Your task to perform on an android device: Go to battery settings Image 0: 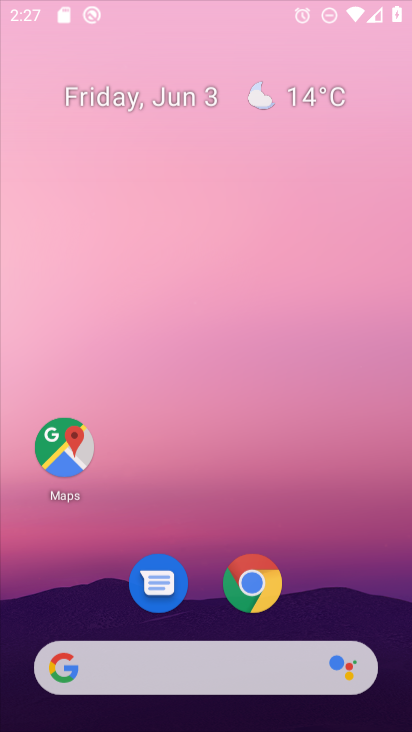
Step 0: drag from (330, 440) to (317, 21)
Your task to perform on an android device: Go to battery settings Image 1: 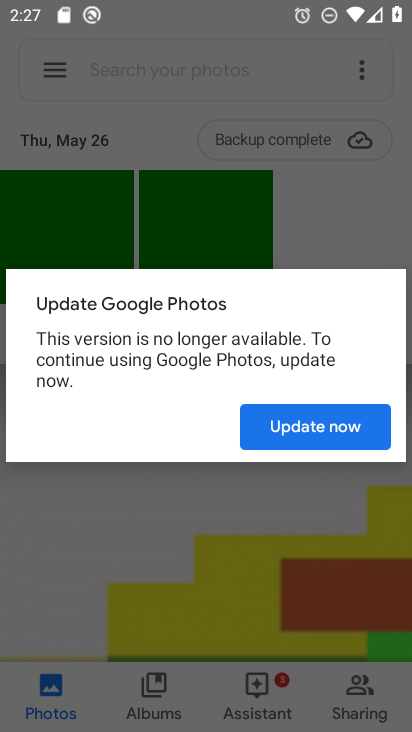
Step 1: press home button
Your task to perform on an android device: Go to battery settings Image 2: 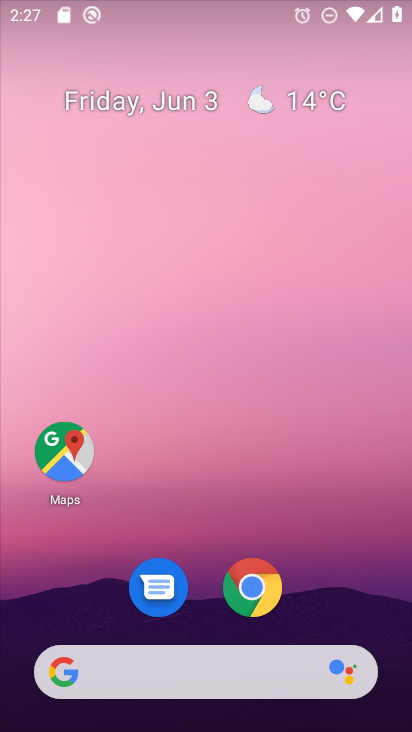
Step 2: drag from (335, 614) to (310, 15)
Your task to perform on an android device: Go to battery settings Image 3: 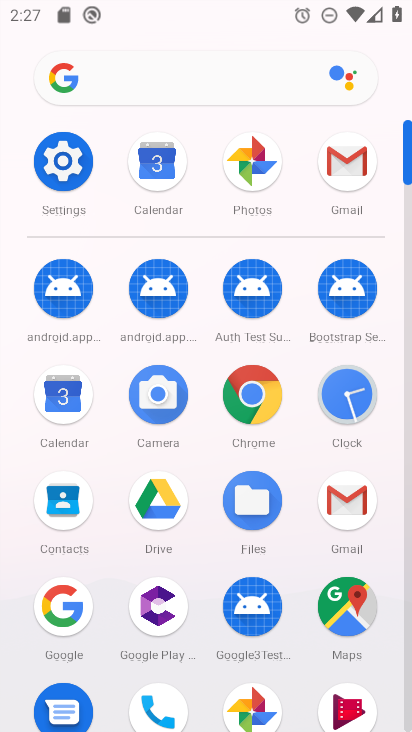
Step 3: click (57, 177)
Your task to perform on an android device: Go to battery settings Image 4: 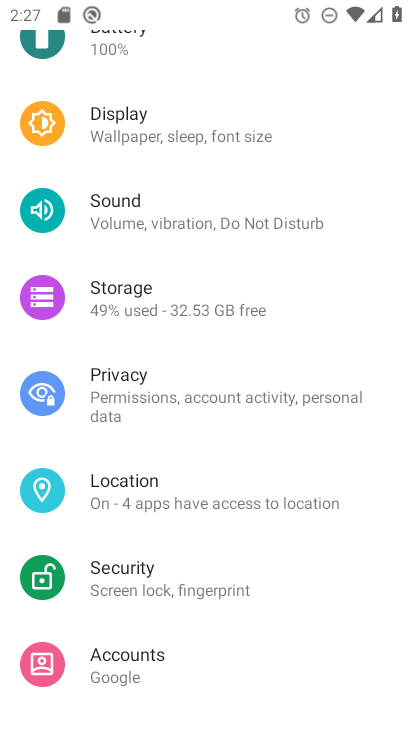
Step 4: drag from (218, 225) to (289, 641)
Your task to perform on an android device: Go to battery settings Image 5: 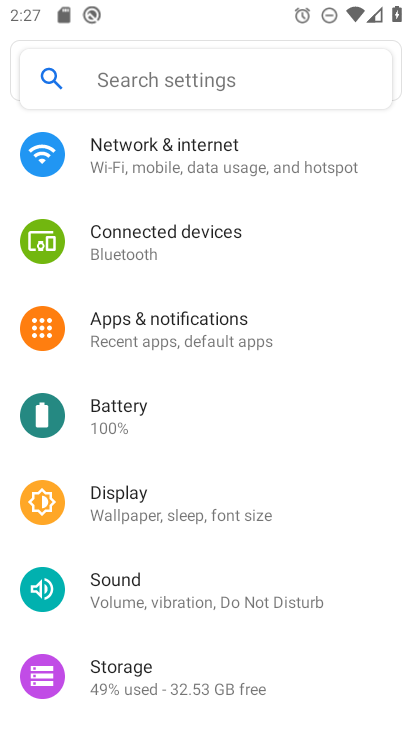
Step 5: click (201, 420)
Your task to perform on an android device: Go to battery settings Image 6: 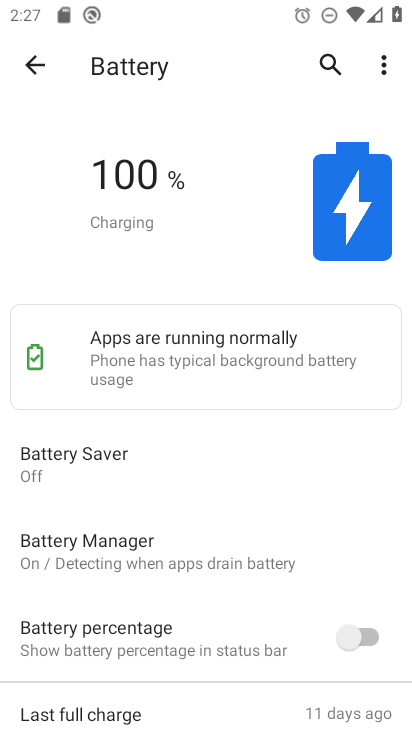
Step 6: task complete